Your task to perform on an android device: Open settings on Google Maps Image 0: 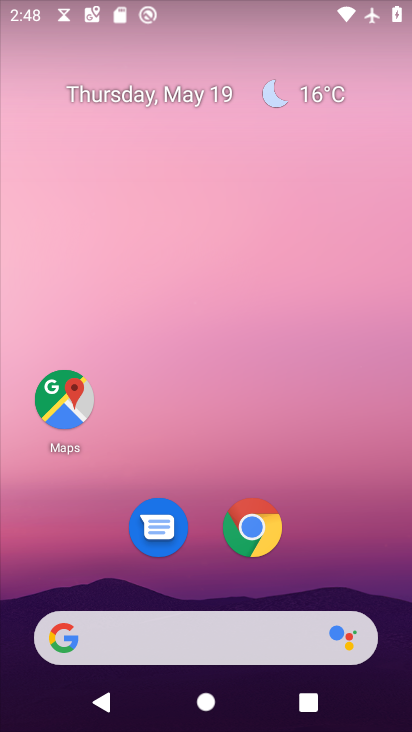
Step 0: click (51, 405)
Your task to perform on an android device: Open settings on Google Maps Image 1: 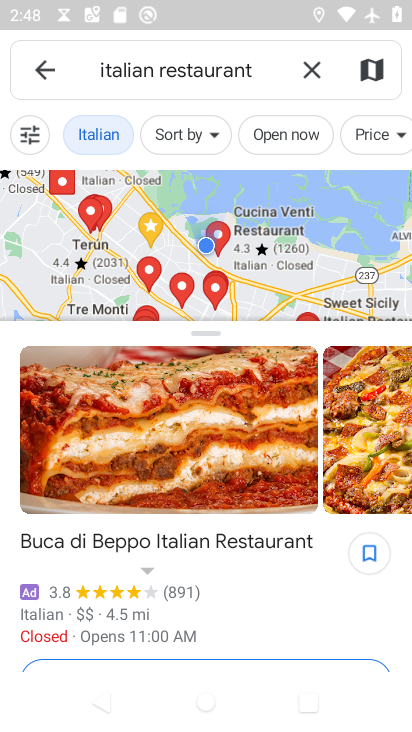
Step 1: click (303, 70)
Your task to perform on an android device: Open settings on Google Maps Image 2: 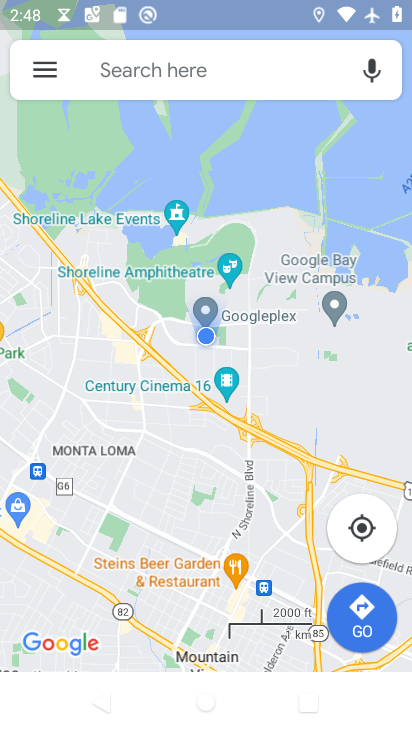
Step 2: click (45, 64)
Your task to perform on an android device: Open settings on Google Maps Image 3: 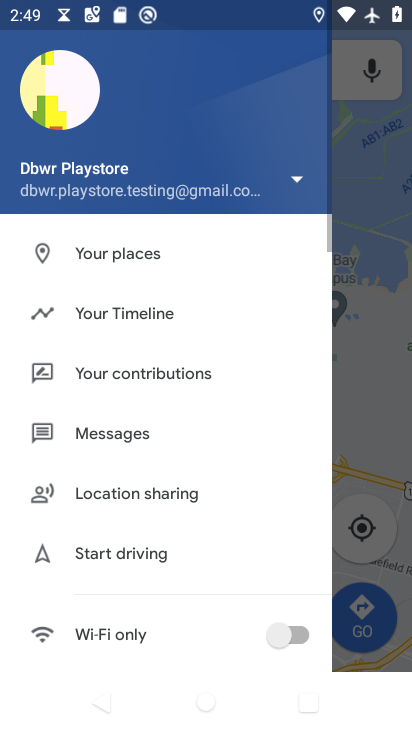
Step 3: drag from (168, 606) to (142, 71)
Your task to perform on an android device: Open settings on Google Maps Image 4: 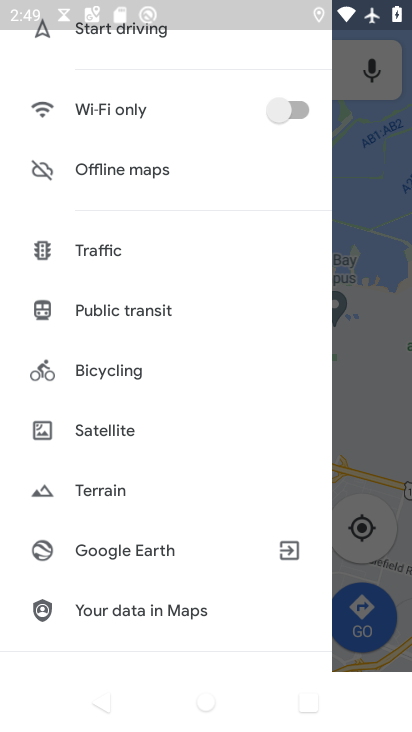
Step 4: drag from (154, 593) to (146, 109)
Your task to perform on an android device: Open settings on Google Maps Image 5: 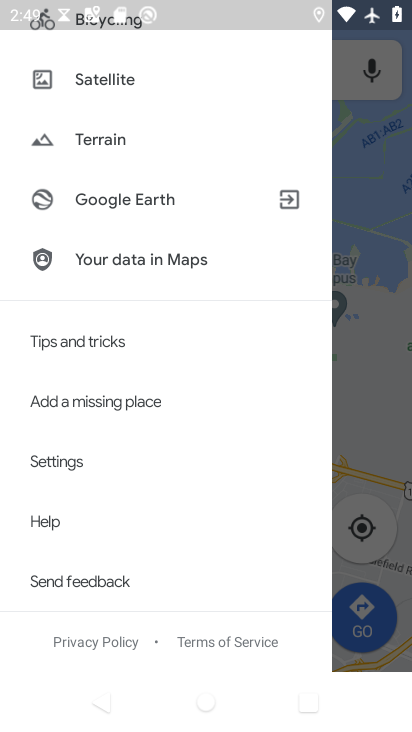
Step 5: click (94, 452)
Your task to perform on an android device: Open settings on Google Maps Image 6: 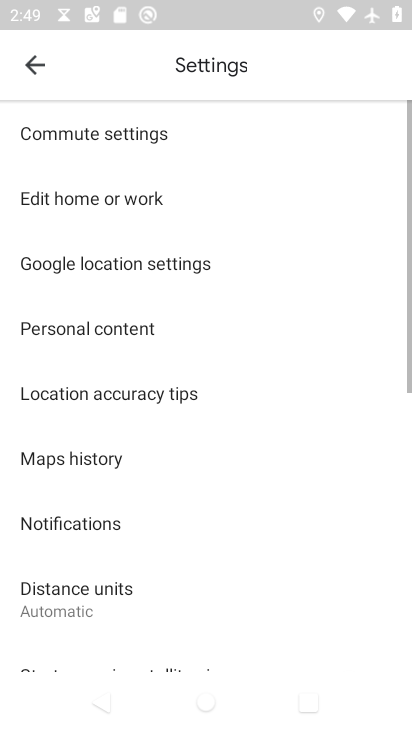
Step 6: task complete